Your task to perform on an android device: turn off javascript in the chrome app Image 0: 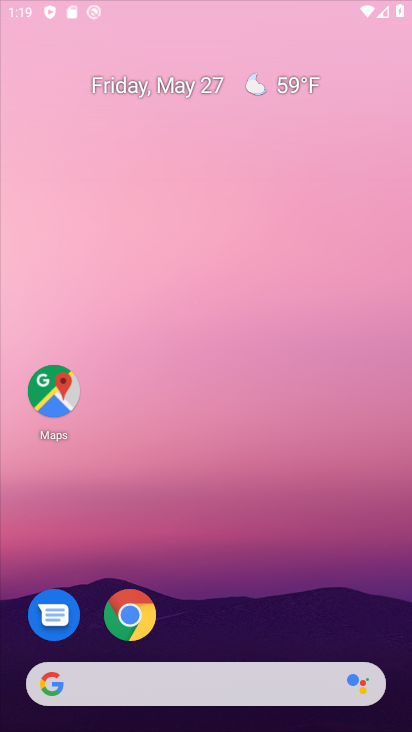
Step 0: press home button
Your task to perform on an android device: turn off javascript in the chrome app Image 1: 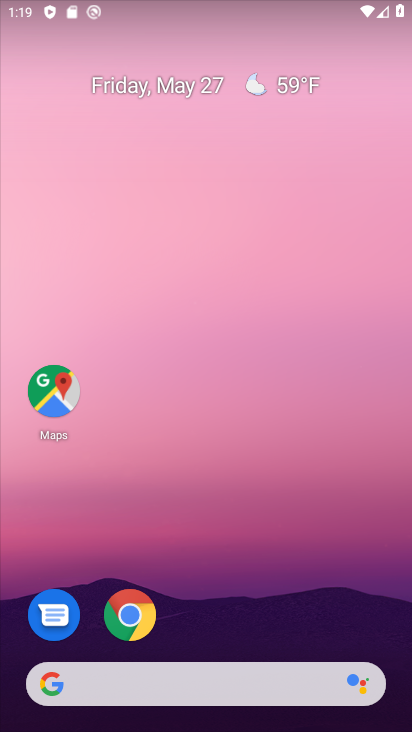
Step 1: click (139, 615)
Your task to perform on an android device: turn off javascript in the chrome app Image 2: 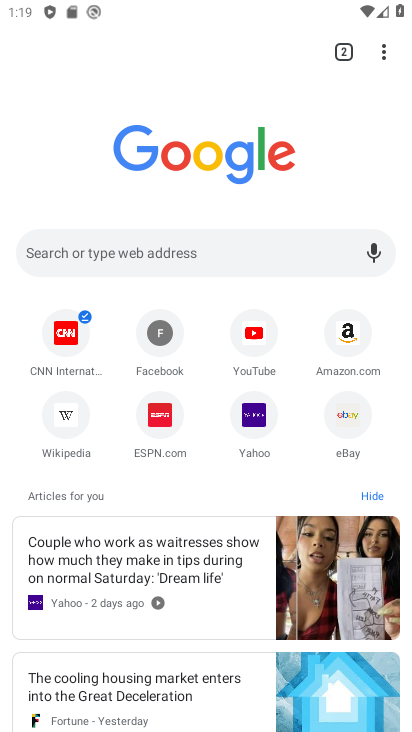
Step 2: click (384, 54)
Your task to perform on an android device: turn off javascript in the chrome app Image 3: 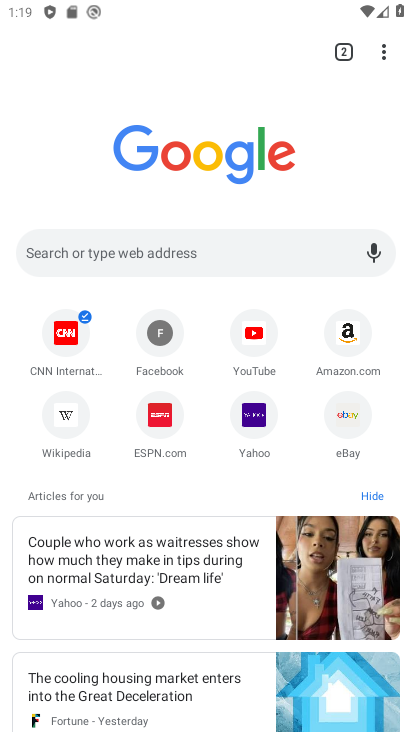
Step 3: click (381, 57)
Your task to perform on an android device: turn off javascript in the chrome app Image 4: 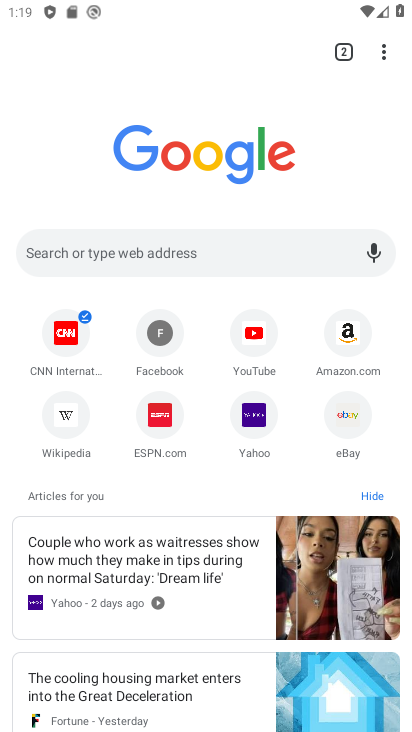
Step 4: drag from (377, 56) to (270, 468)
Your task to perform on an android device: turn off javascript in the chrome app Image 5: 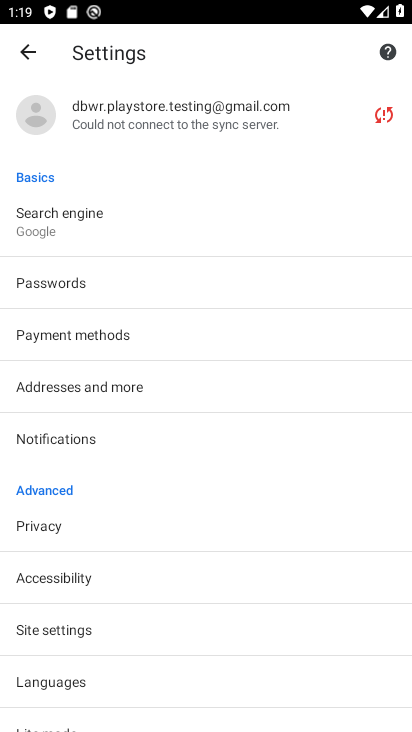
Step 5: drag from (242, 679) to (187, 245)
Your task to perform on an android device: turn off javascript in the chrome app Image 6: 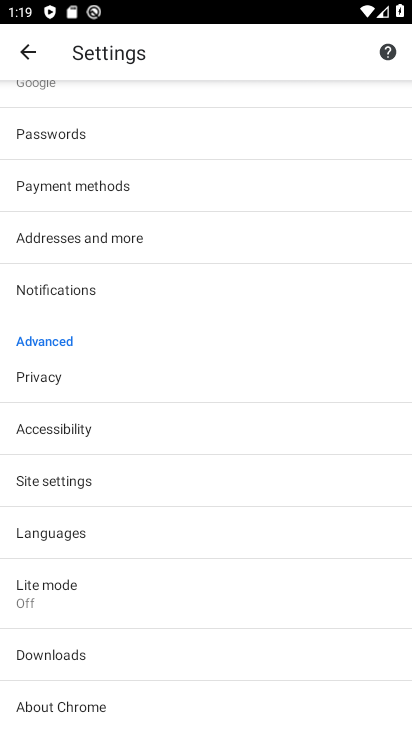
Step 6: drag from (232, 129) to (229, 589)
Your task to perform on an android device: turn off javascript in the chrome app Image 7: 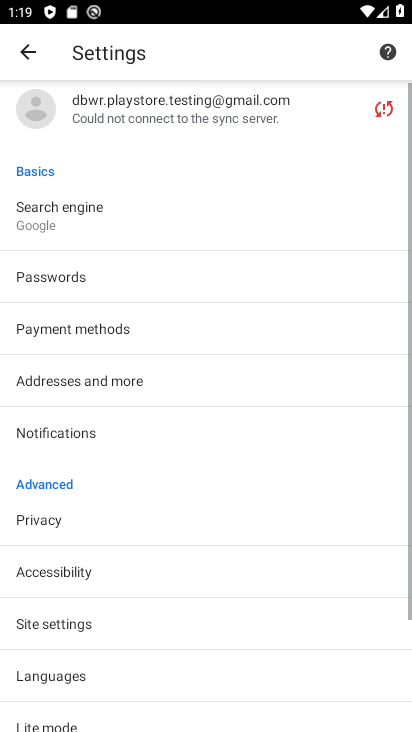
Step 7: click (131, 633)
Your task to perform on an android device: turn off javascript in the chrome app Image 8: 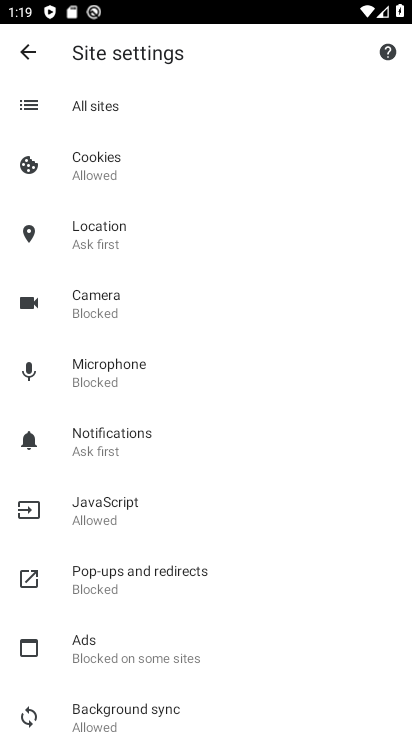
Step 8: drag from (282, 702) to (234, 520)
Your task to perform on an android device: turn off javascript in the chrome app Image 9: 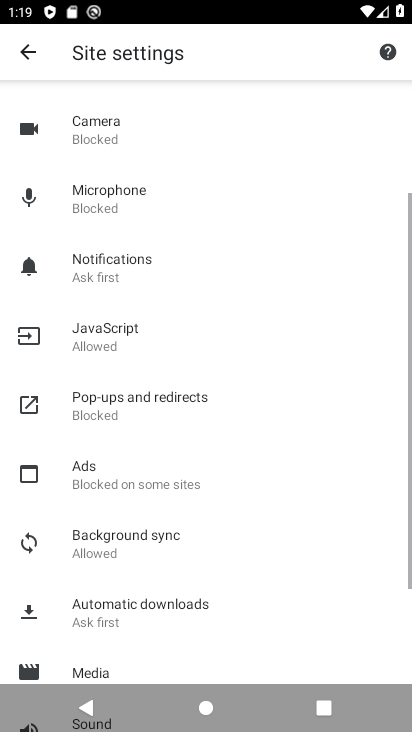
Step 9: click (139, 343)
Your task to perform on an android device: turn off javascript in the chrome app Image 10: 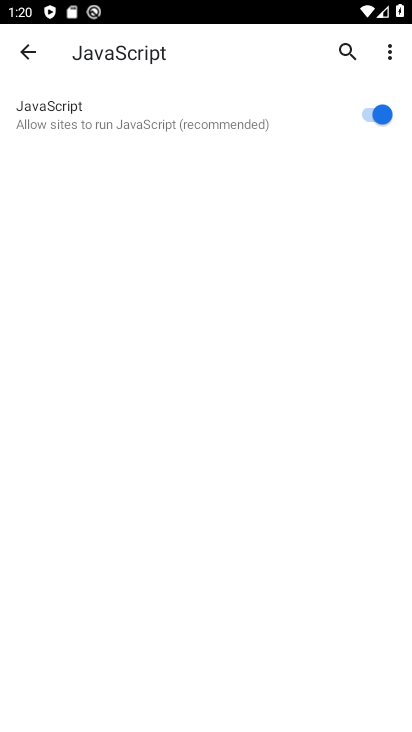
Step 10: click (372, 117)
Your task to perform on an android device: turn off javascript in the chrome app Image 11: 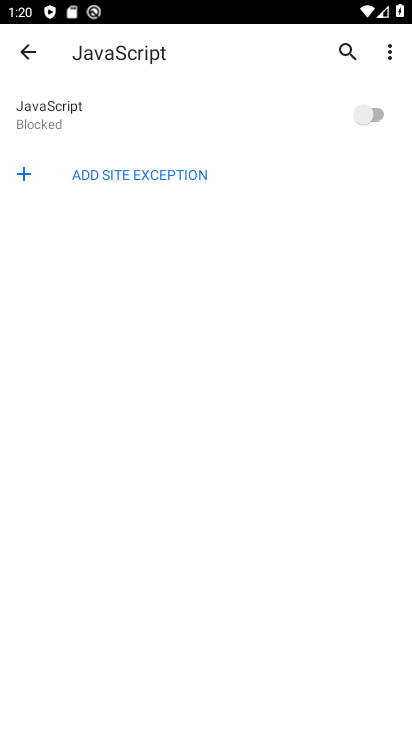
Step 11: task complete